Your task to perform on an android device: Open the stopwatch Image 0: 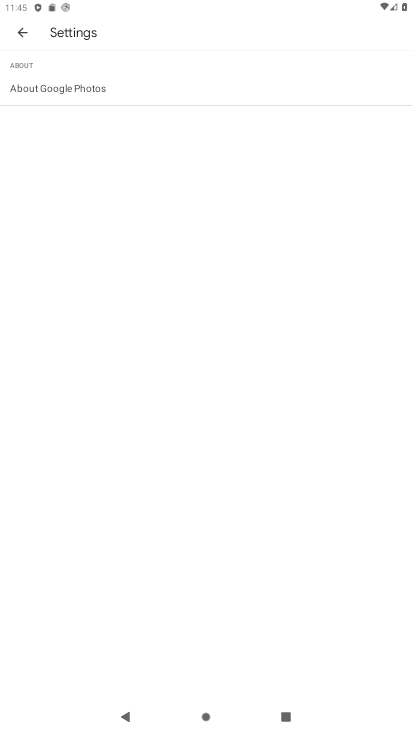
Step 0: press home button
Your task to perform on an android device: Open the stopwatch Image 1: 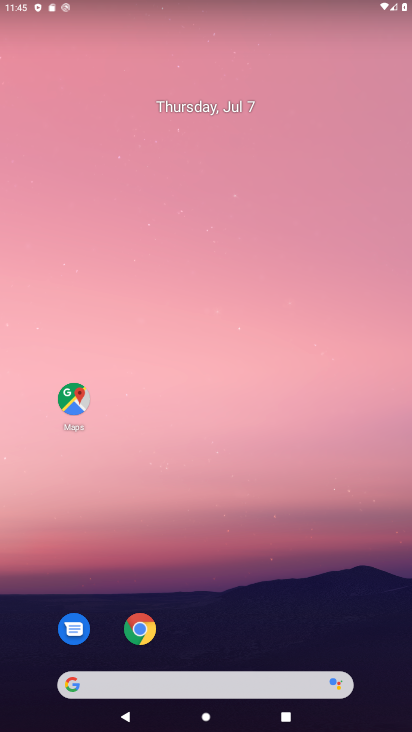
Step 1: drag from (323, 635) to (293, 86)
Your task to perform on an android device: Open the stopwatch Image 2: 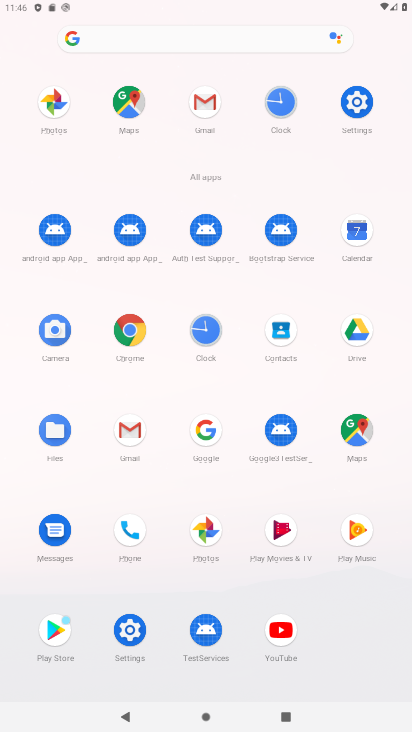
Step 2: click (282, 131)
Your task to perform on an android device: Open the stopwatch Image 3: 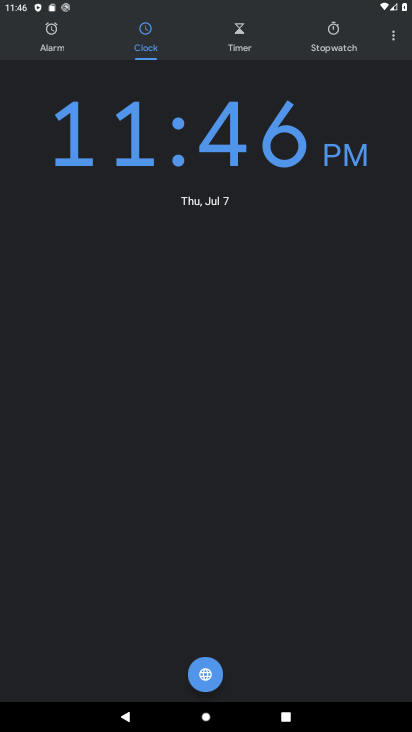
Step 3: click (334, 63)
Your task to perform on an android device: Open the stopwatch Image 4: 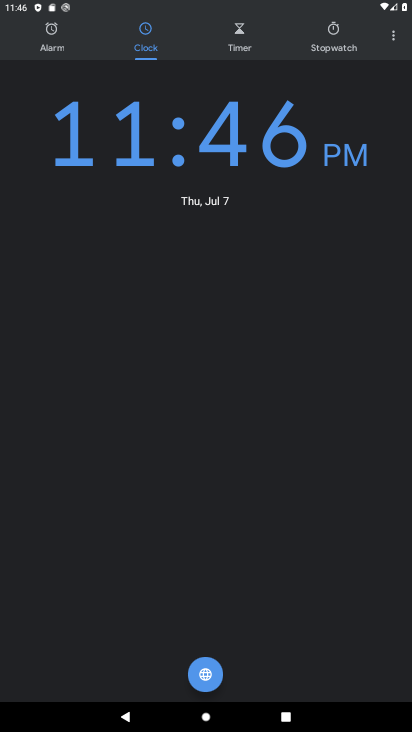
Step 4: click (350, 47)
Your task to perform on an android device: Open the stopwatch Image 5: 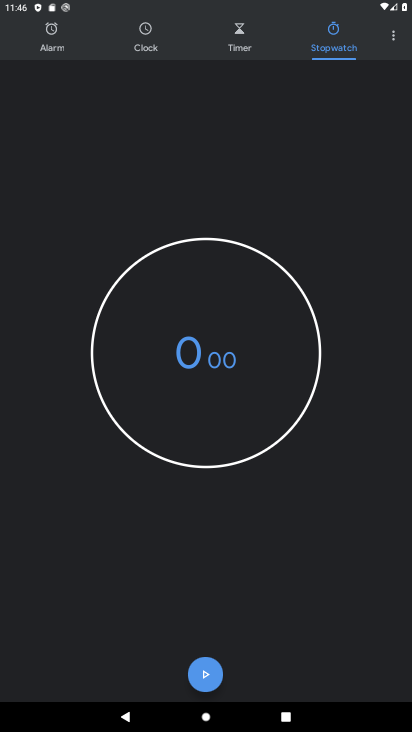
Step 5: task complete